Your task to perform on an android device: toggle javascript in the chrome app Image 0: 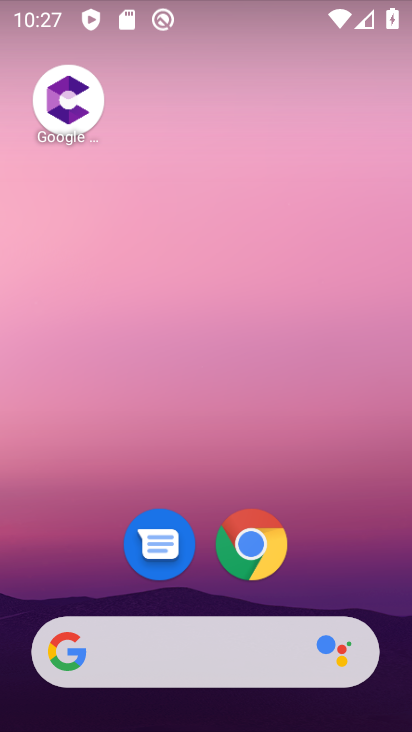
Step 0: click (247, 532)
Your task to perform on an android device: toggle javascript in the chrome app Image 1: 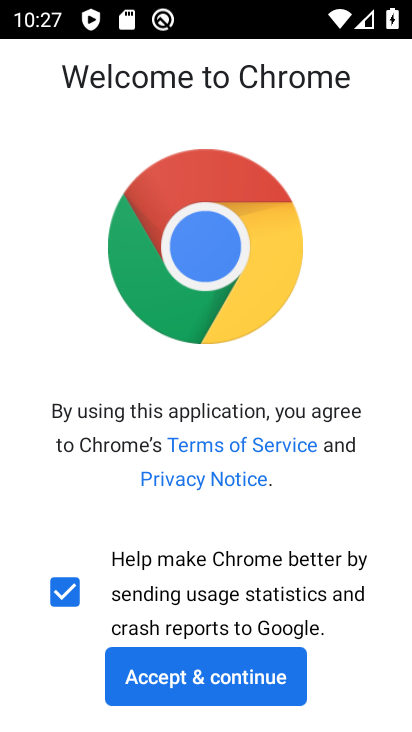
Step 1: click (241, 673)
Your task to perform on an android device: toggle javascript in the chrome app Image 2: 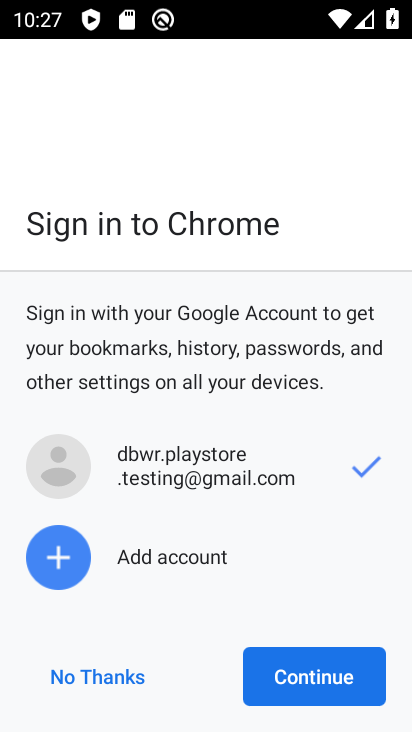
Step 2: click (300, 684)
Your task to perform on an android device: toggle javascript in the chrome app Image 3: 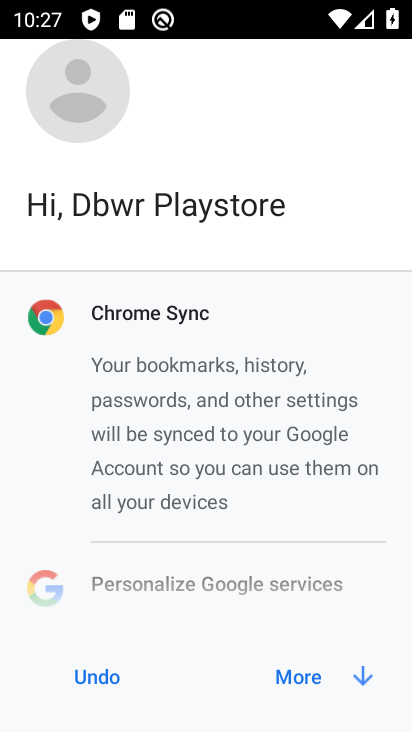
Step 3: click (300, 684)
Your task to perform on an android device: toggle javascript in the chrome app Image 4: 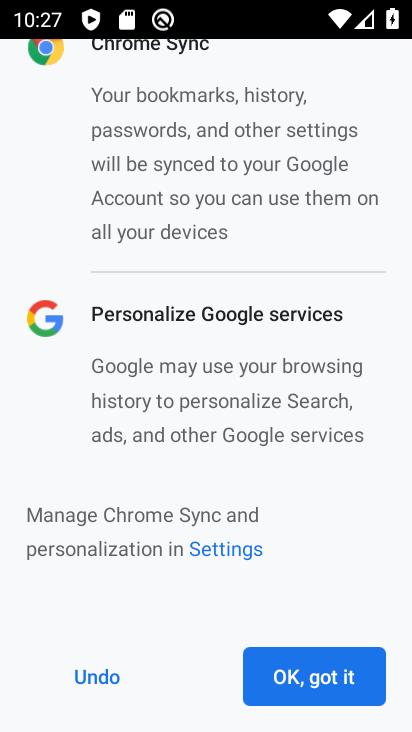
Step 4: click (312, 686)
Your task to perform on an android device: toggle javascript in the chrome app Image 5: 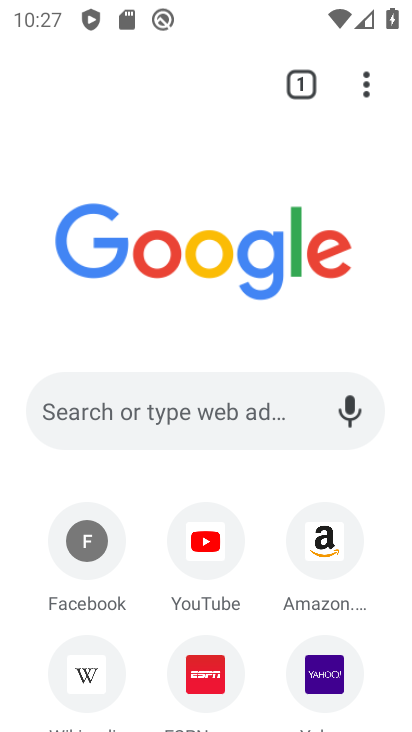
Step 5: click (367, 94)
Your task to perform on an android device: toggle javascript in the chrome app Image 6: 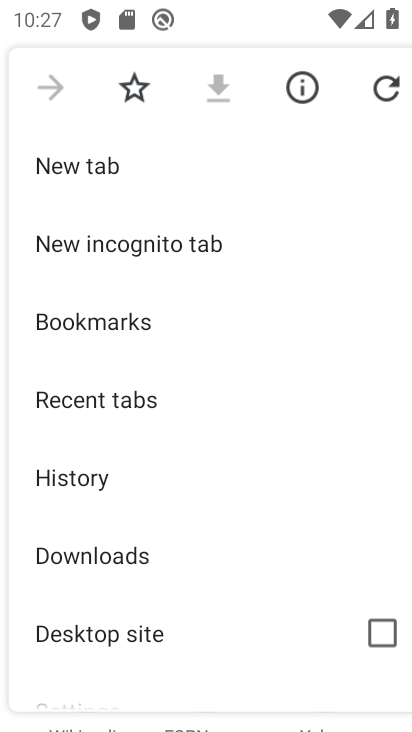
Step 6: drag from (189, 581) to (162, 268)
Your task to perform on an android device: toggle javascript in the chrome app Image 7: 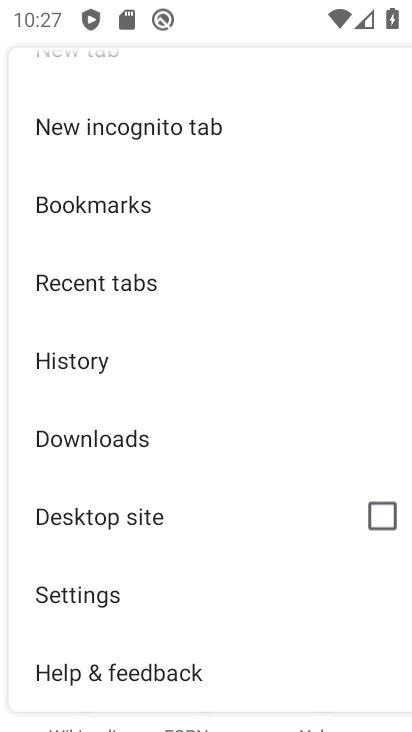
Step 7: click (197, 593)
Your task to perform on an android device: toggle javascript in the chrome app Image 8: 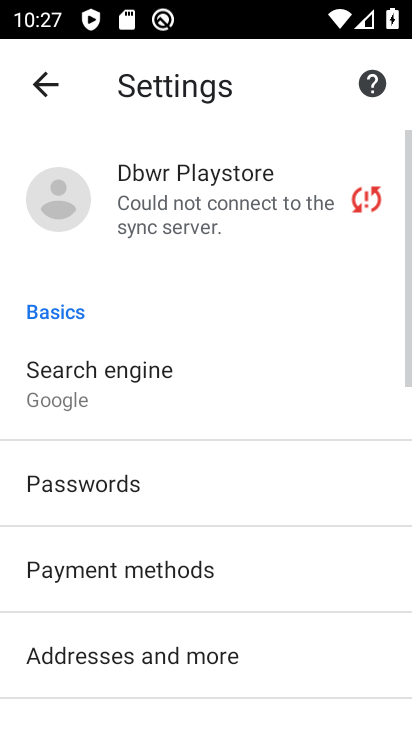
Step 8: drag from (268, 672) to (171, 280)
Your task to perform on an android device: toggle javascript in the chrome app Image 9: 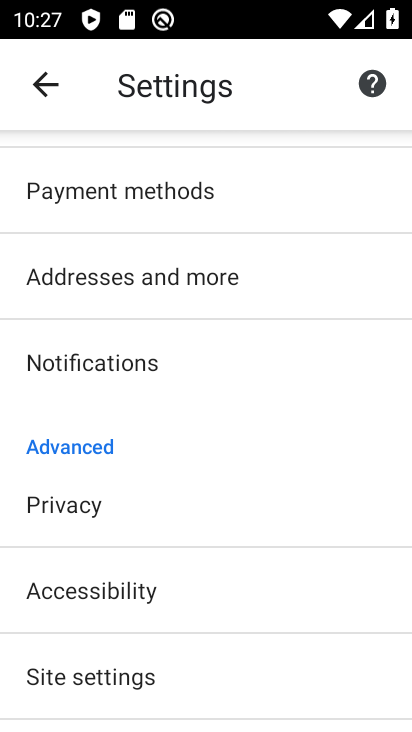
Step 9: click (236, 684)
Your task to perform on an android device: toggle javascript in the chrome app Image 10: 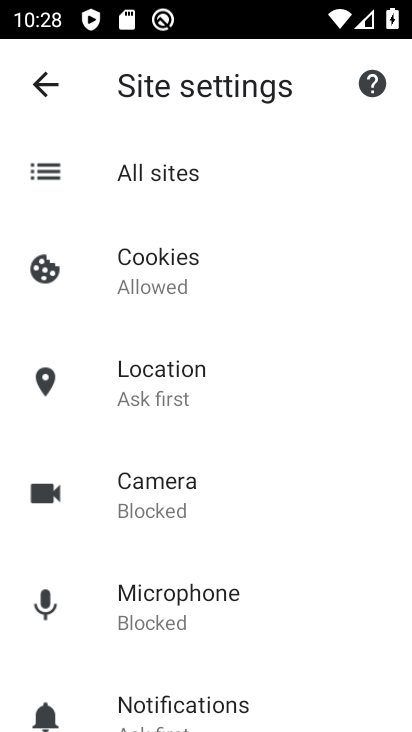
Step 10: drag from (261, 657) to (206, 179)
Your task to perform on an android device: toggle javascript in the chrome app Image 11: 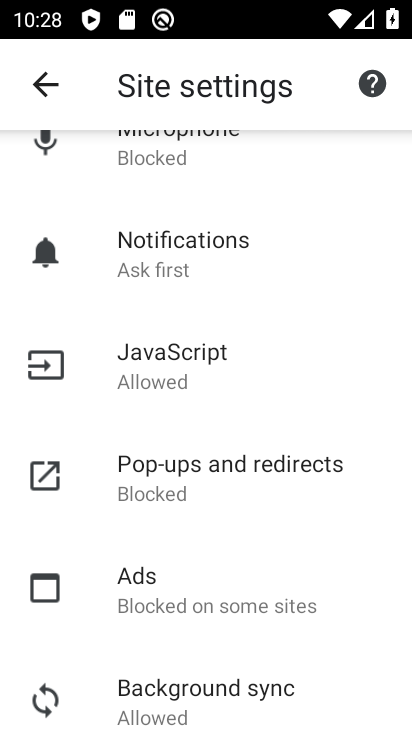
Step 11: click (253, 355)
Your task to perform on an android device: toggle javascript in the chrome app Image 12: 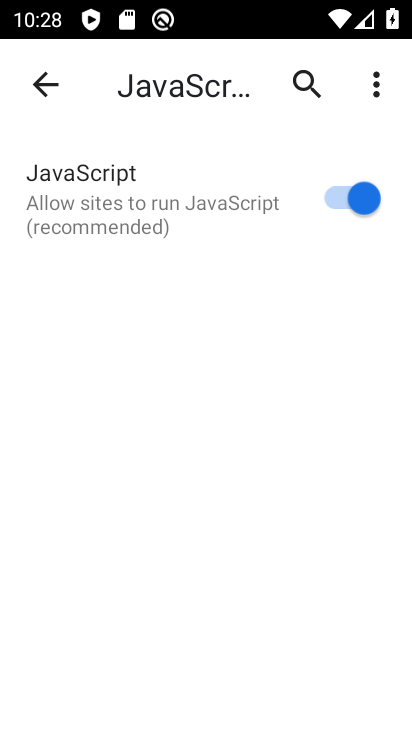
Step 12: click (364, 212)
Your task to perform on an android device: toggle javascript in the chrome app Image 13: 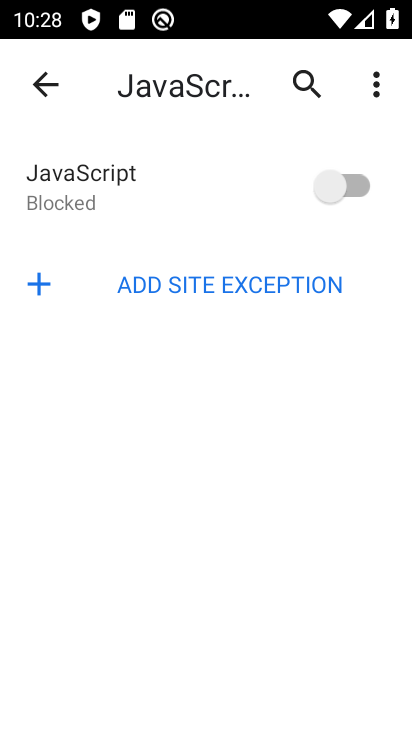
Step 13: task complete